Your task to perform on an android device: Go to location settings Image 0: 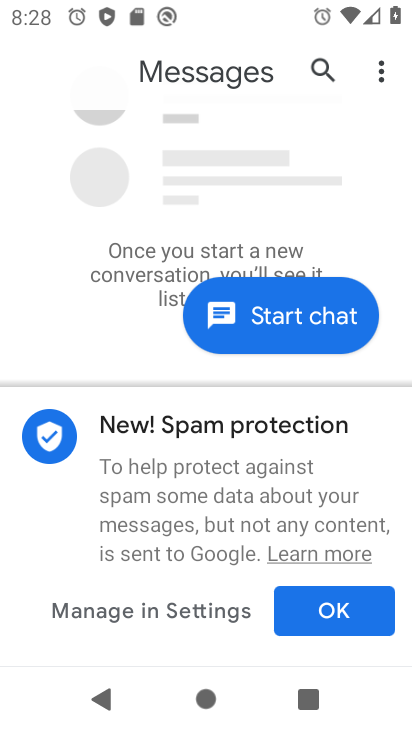
Step 0: press home button
Your task to perform on an android device: Go to location settings Image 1: 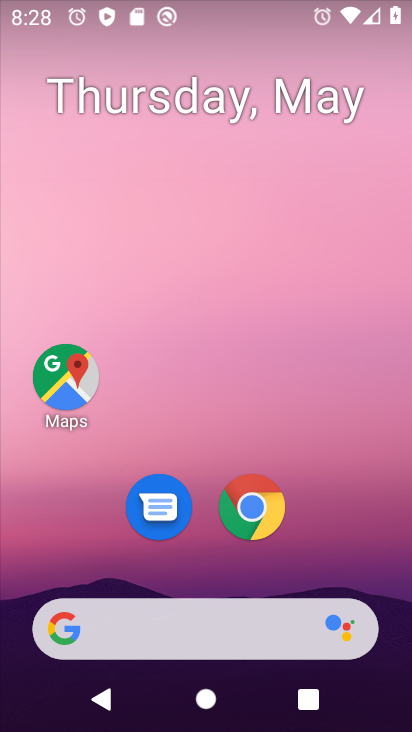
Step 1: drag from (217, 502) to (312, 57)
Your task to perform on an android device: Go to location settings Image 2: 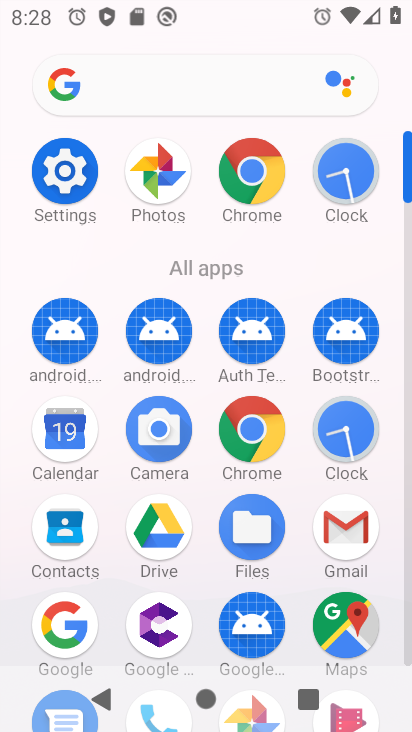
Step 2: click (62, 181)
Your task to perform on an android device: Go to location settings Image 3: 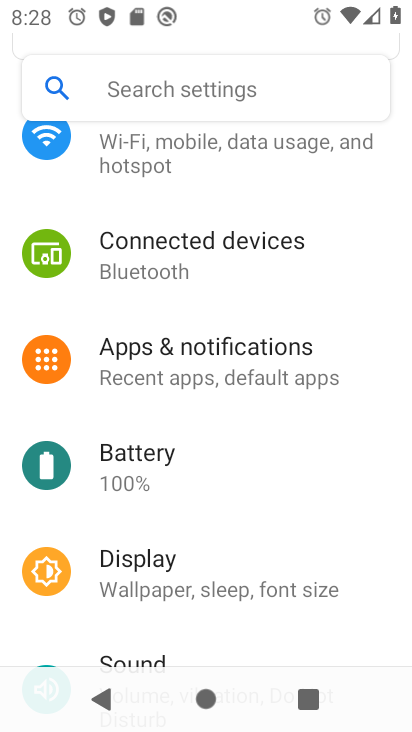
Step 3: drag from (204, 582) to (233, 220)
Your task to perform on an android device: Go to location settings Image 4: 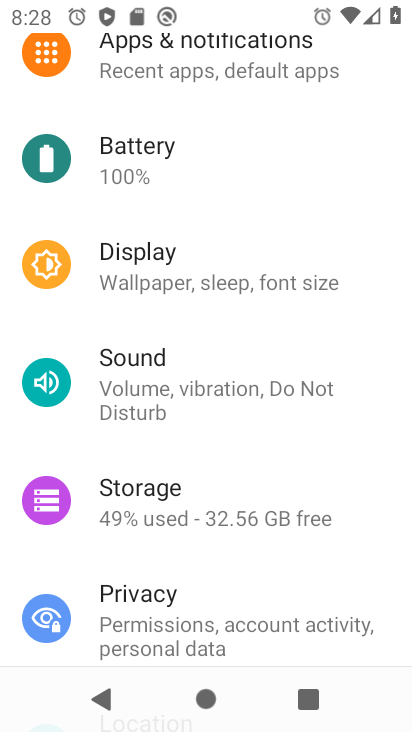
Step 4: drag from (257, 533) to (290, 190)
Your task to perform on an android device: Go to location settings Image 5: 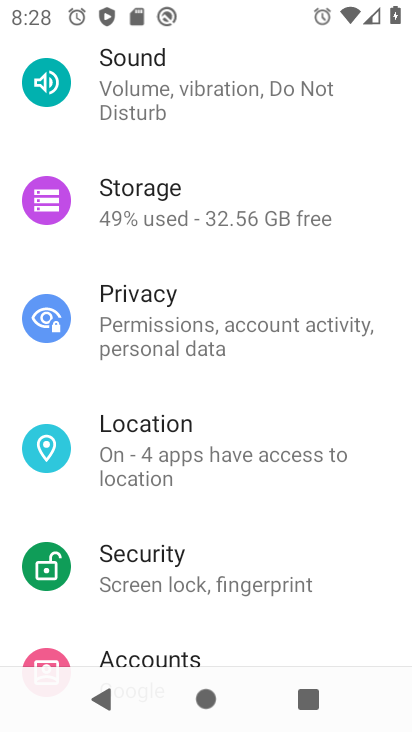
Step 5: click (194, 449)
Your task to perform on an android device: Go to location settings Image 6: 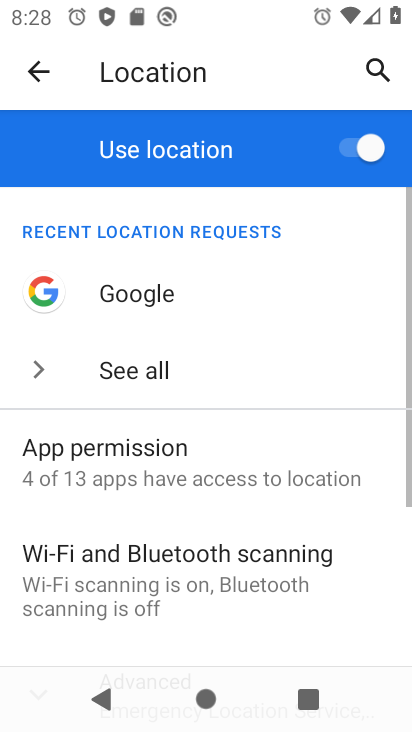
Step 6: task complete